Your task to perform on an android device: check battery use Image 0: 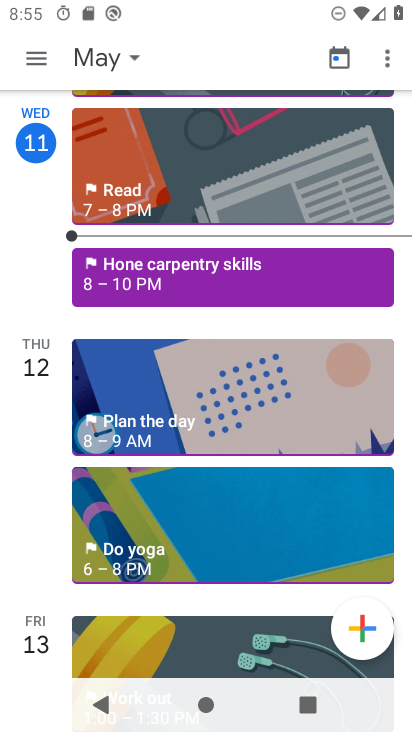
Step 0: press home button
Your task to perform on an android device: check battery use Image 1: 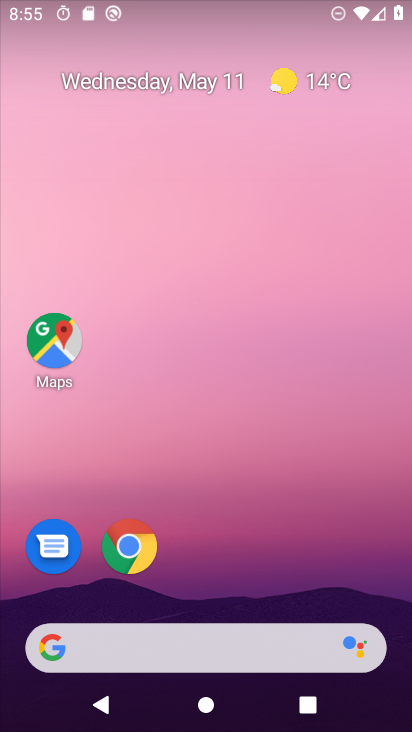
Step 1: drag from (184, 602) to (176, 544)
Your task to perform on an android device: check battery use Image 2: 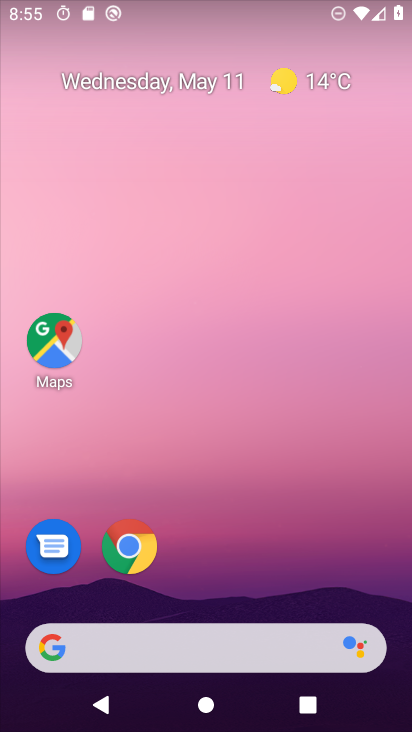
Step 2: click (171, 546)
Your task to perform on an android device: check battery use Image 3: 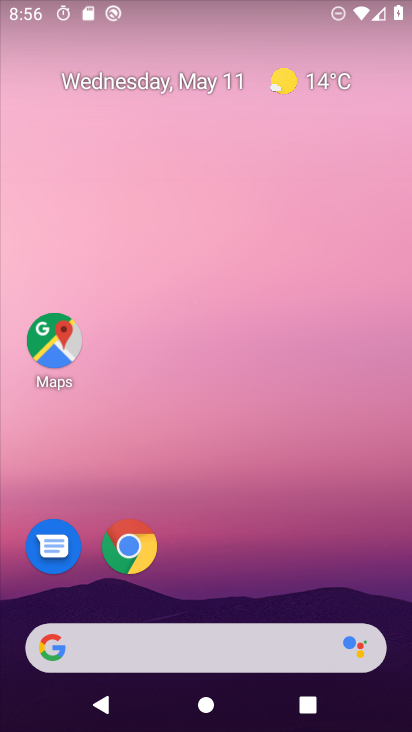
Step 3: drag from (284, 650) to (176, 192)
Your task to perform on an android device: check battery use Image 4: 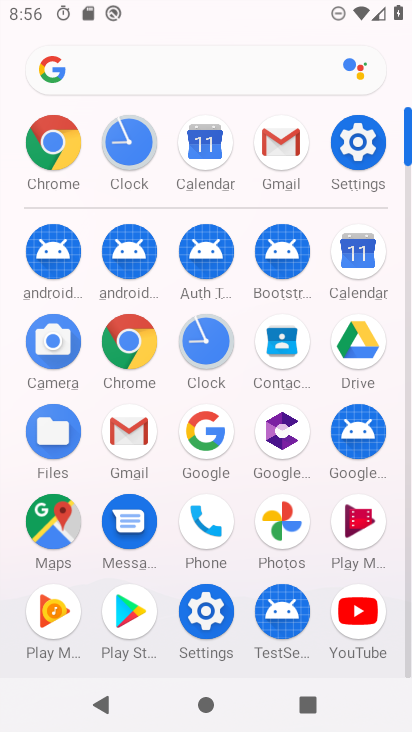
Step 4: click (176, 190)
Your task to perform on an android device: check battery use Image 5: 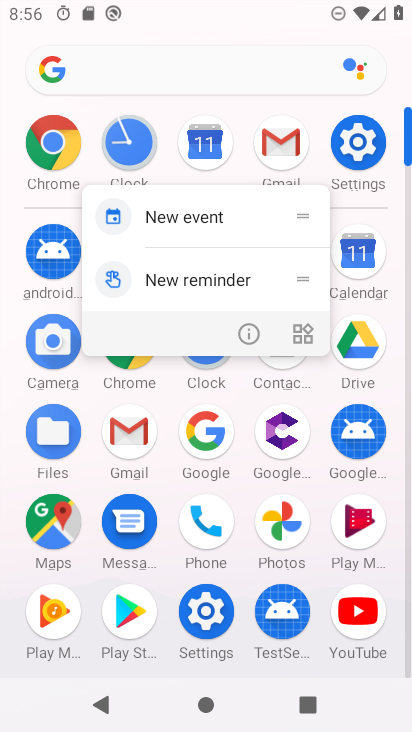
Step 5: click (350, 132)
Your task to perform on an android device: check battery use Image 6: 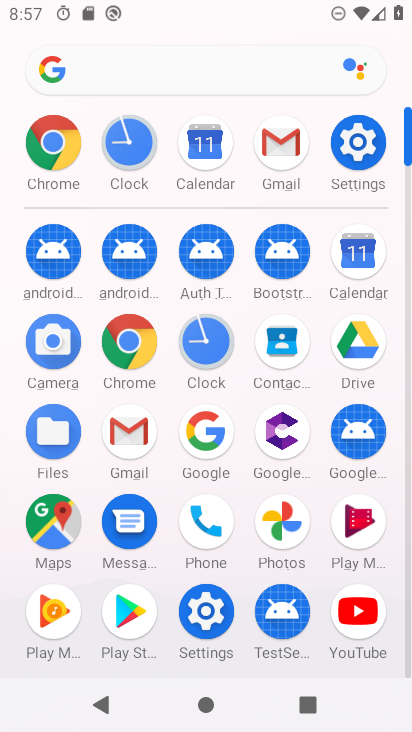
Step 6: click (329, 148)
Your task to perform on an android device: check battery use Image 7: 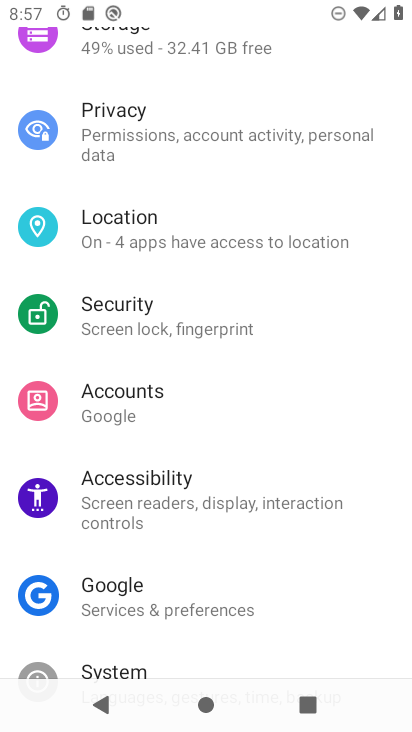
Step 7: drag from (160, 138) to (187, 340)
Your task to perform on an android device: check battery use Image 8: 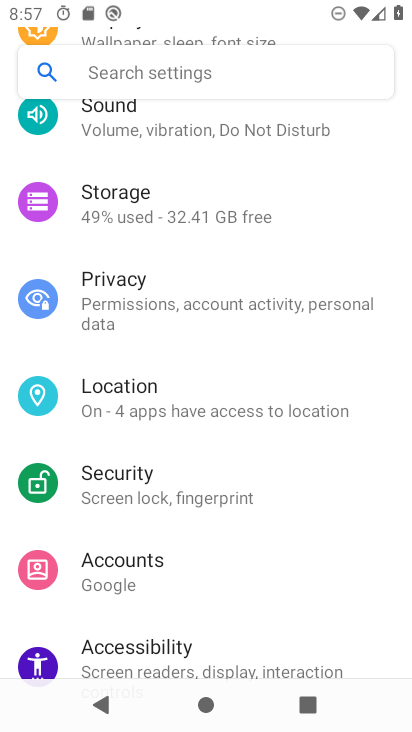
Step 8: drag from (154, 225) to (199, 431)
Your task to perform on an android device: check battery use Image 9: 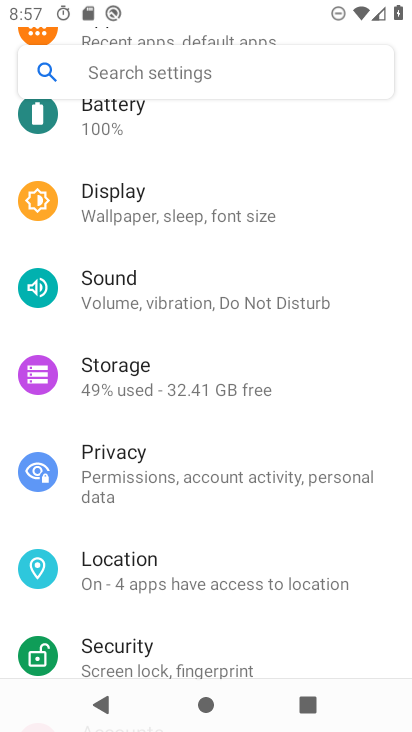
Step 9: drag from (105, 164) to (149, 267)
Your task to perform on an android device: check battery use Image 10: 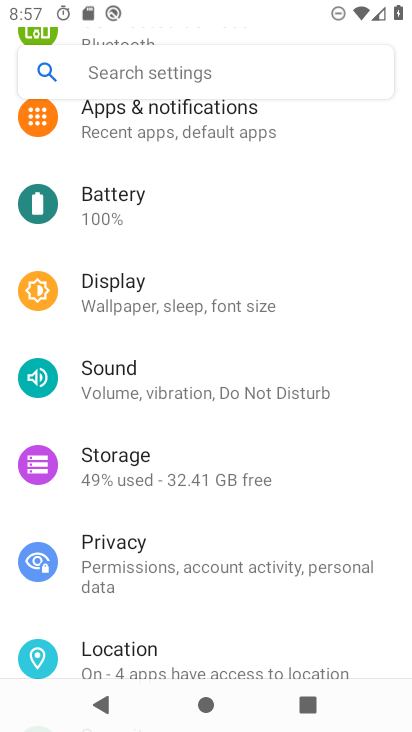
Step 10: click (128, 212)
Your task to perform on an android device: check battery use Image 11: 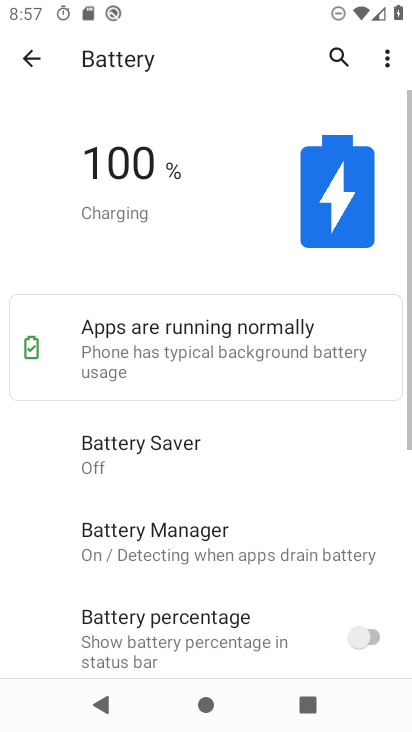
Step 11: click (369, 49)
Your task to perform on an android device: check battery use Image 12: 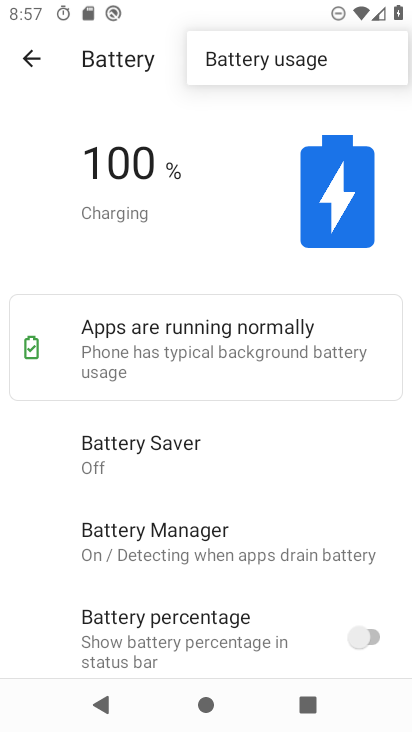
Step 12: click (369, 49)
Your task to perform on an android device: check battery use Image 13: 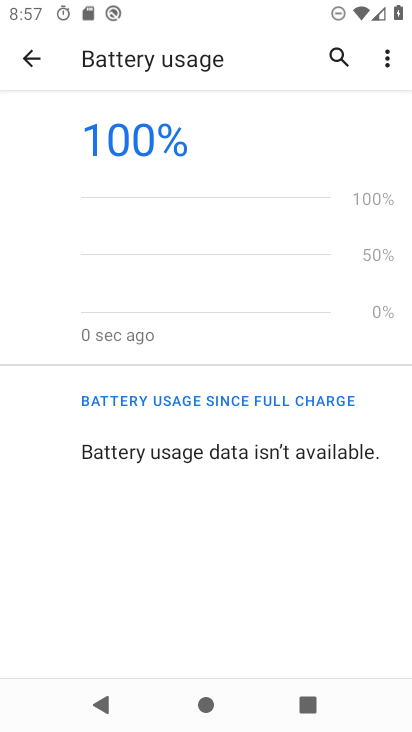
Step 13: click (361, 43)
Your task to perform on an android device: check battery use Image 14: 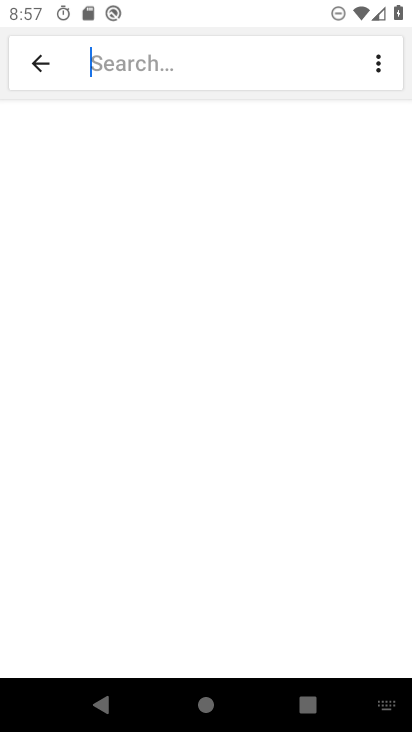
Step 14: task complete